Your task to perform on an android device: install app "Mercado Libre" Image 0: 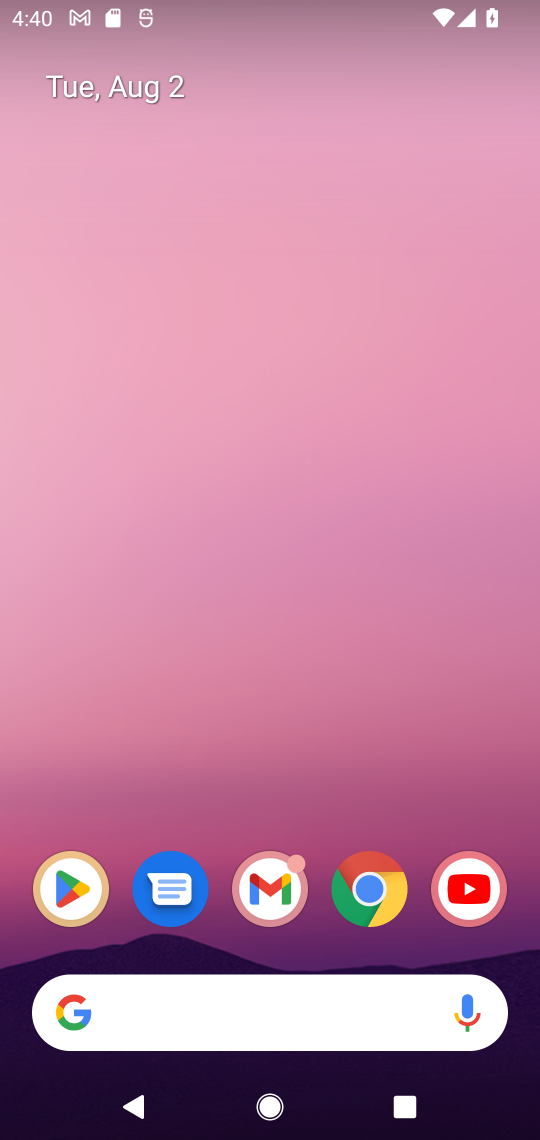
Step 0: press home button
Your task to perform on an android device: install app "Mercado Libre" Image 1: 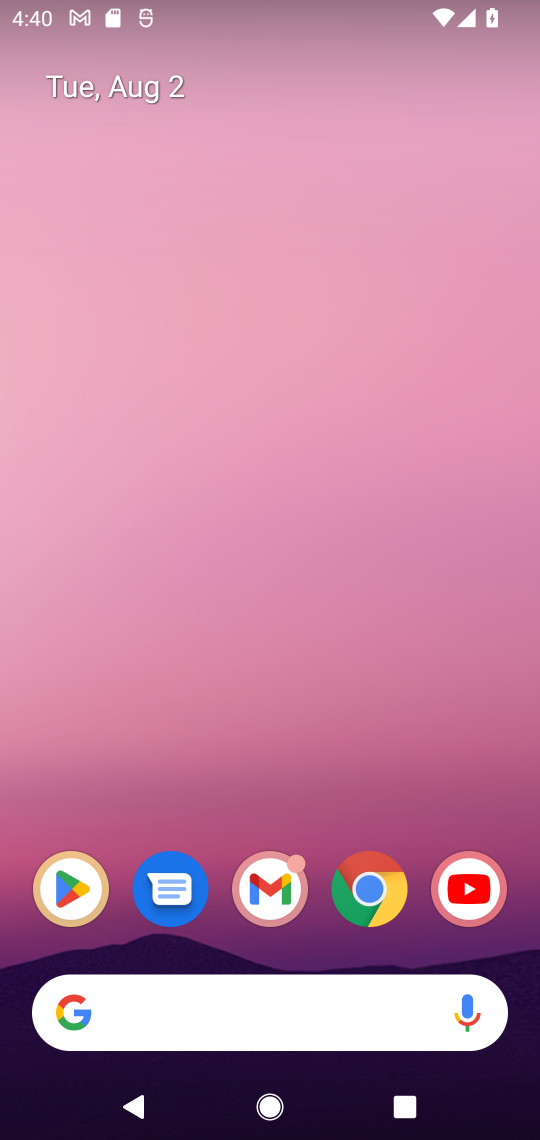
Step 1: drag from (408, 775) to (360, 66)
Your task to perform on an android device: install app "Mercado Libre" Image 2: 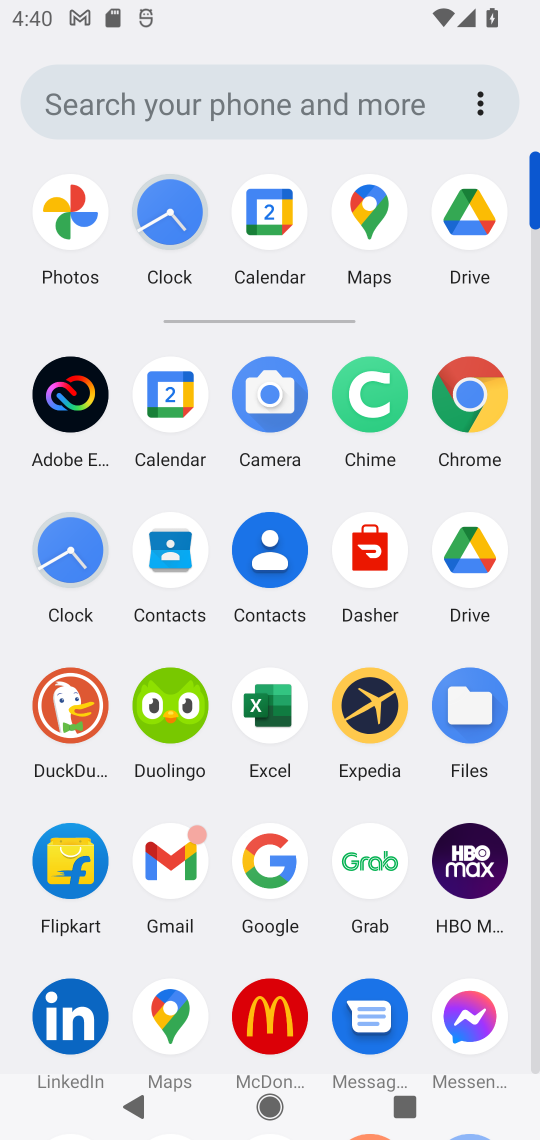
Step 2: drag from (507, 945) to (520, 423)
Your task to perform on an android device: install app "Mercado Libre" Image 3: 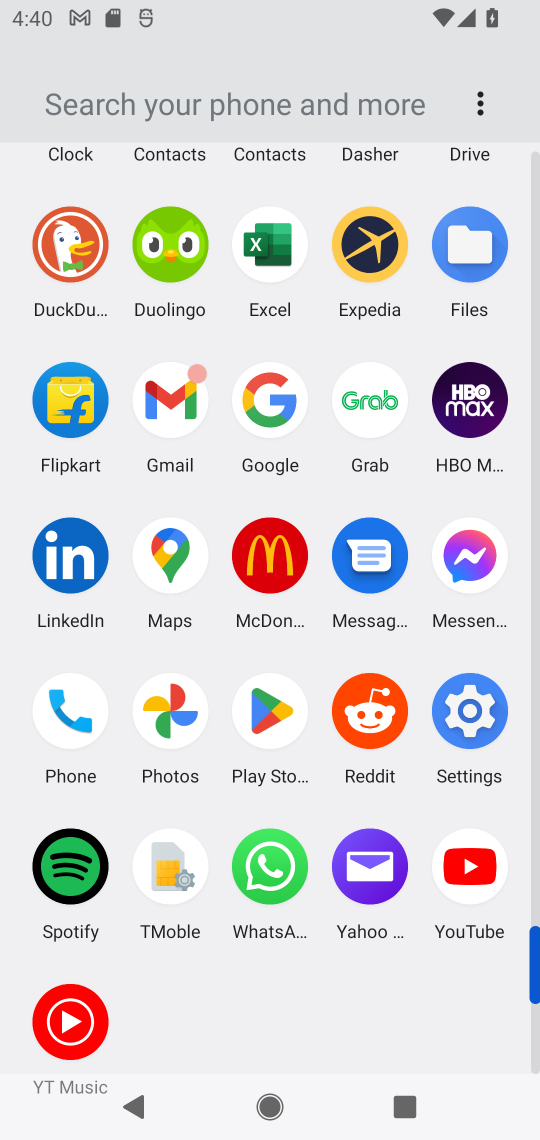
Step 3: click (281, 705)
Your task to perform on an android device: install app "Mercado Libre" Image 4: 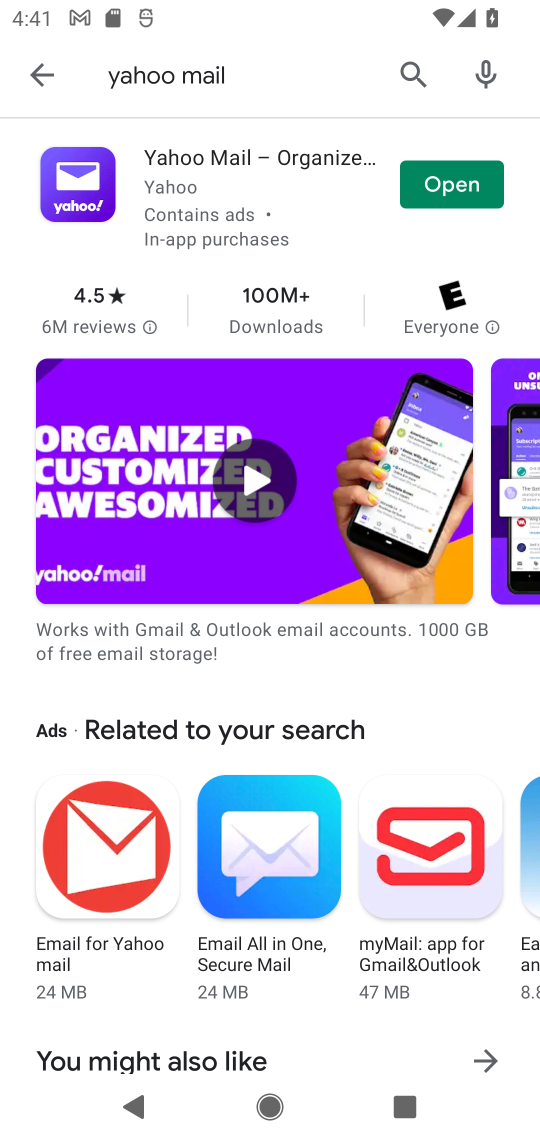
Step 4: click (412, 71)
Your task to perform on an android device: install app "Mercado Libre" Image 5: 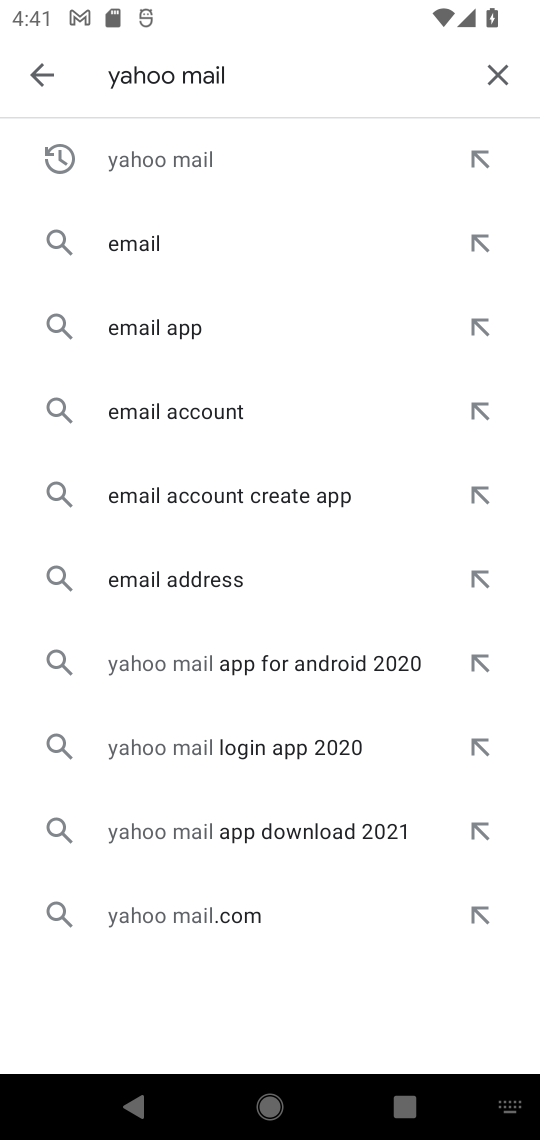
Step 5: click (501, 83)
Your task to perform on an android device: install app "Mercado Libre" Image 6: 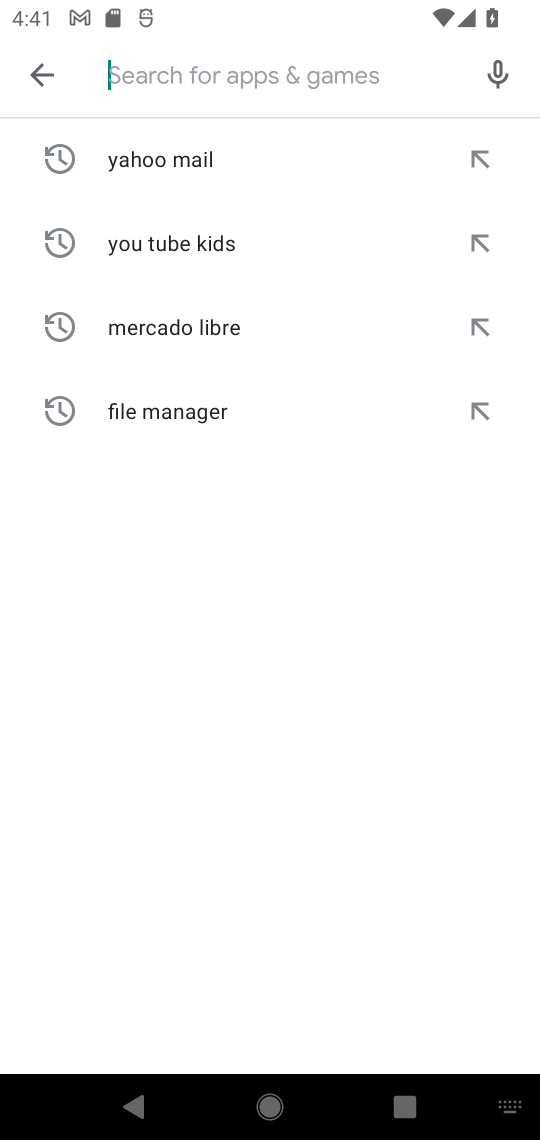
Step 6: type "mercado libre"
Your task to perform on an android device: install app "Mercado Libre" Image 7: 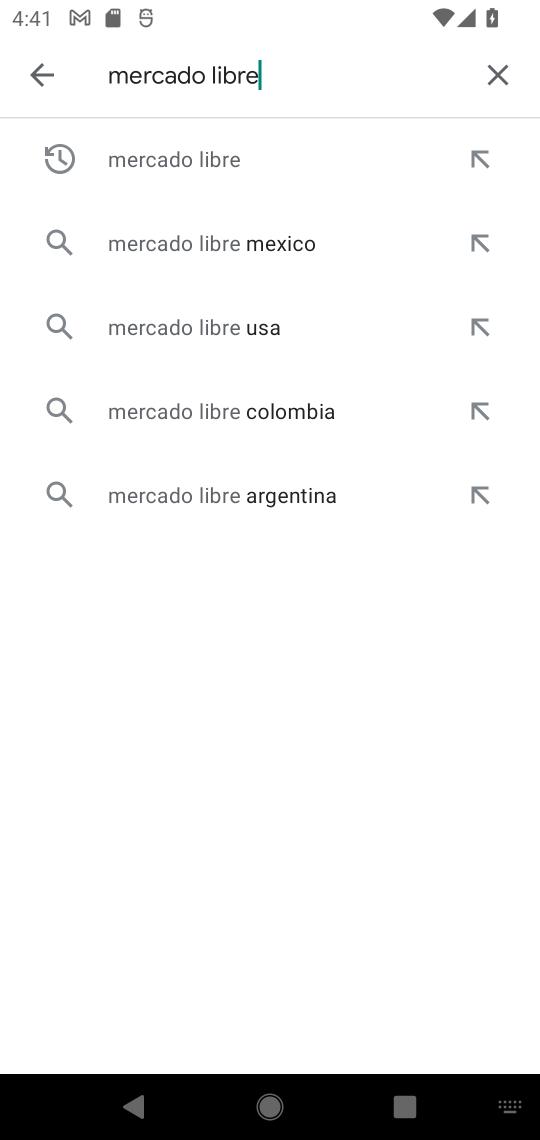
Step 7: click (282, 156)
Your task to perform on an android device: install app "Mercado Libre" Image 8: 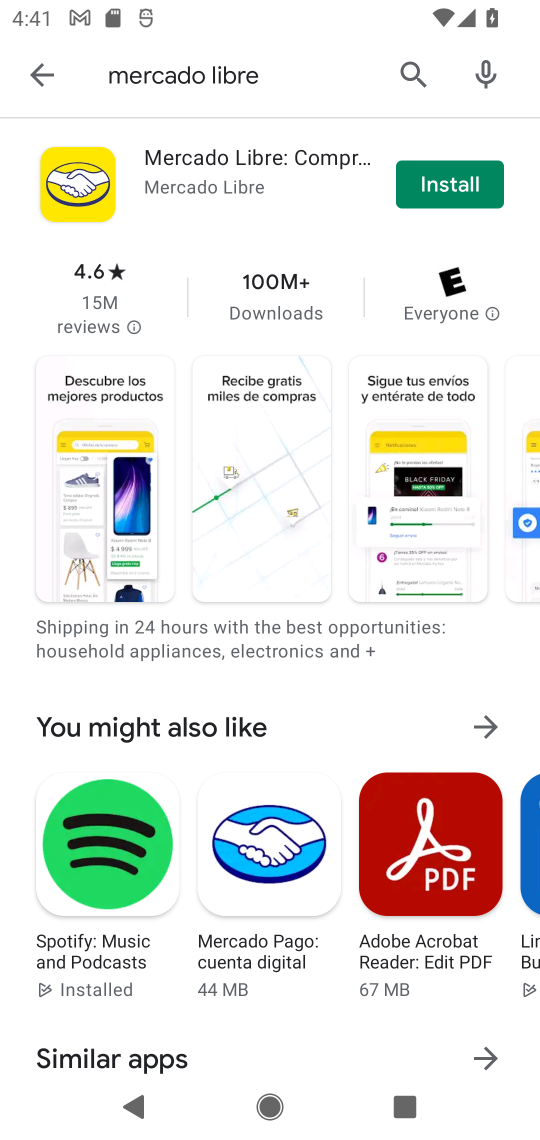
Step 8: click (444, 183)
Your task to perform on an android device: install app "Mercado Libre" Image 9: 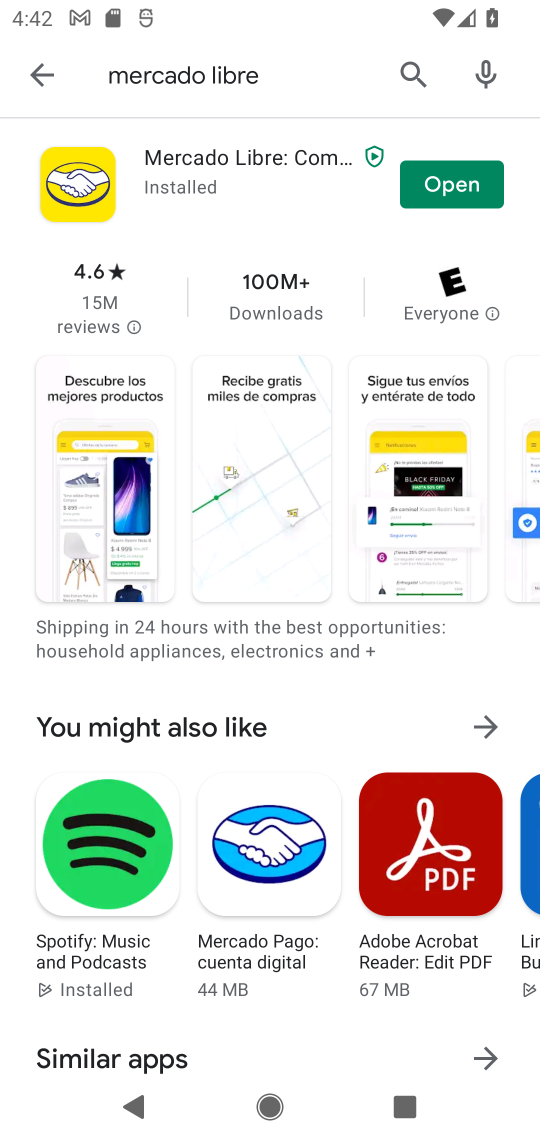
Step 9: task complete